Your task to perform on an android device: turn on the 12-hour format for clock Image 0: 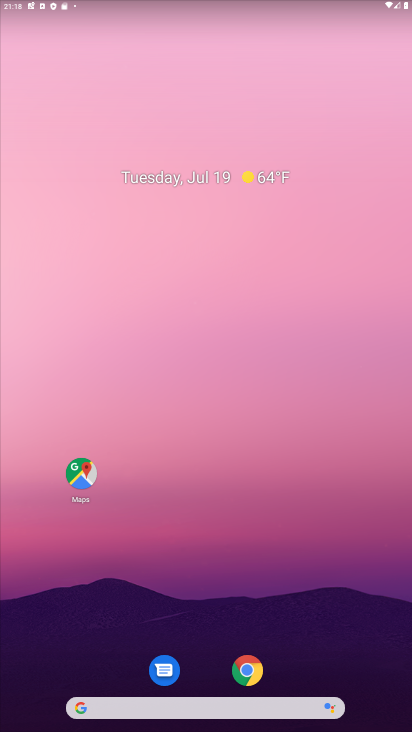
Step 0: drag from (199, 731) to (172, 312)
Your task to perform on an android device: turn on the 12-hour format for clock Image 1: 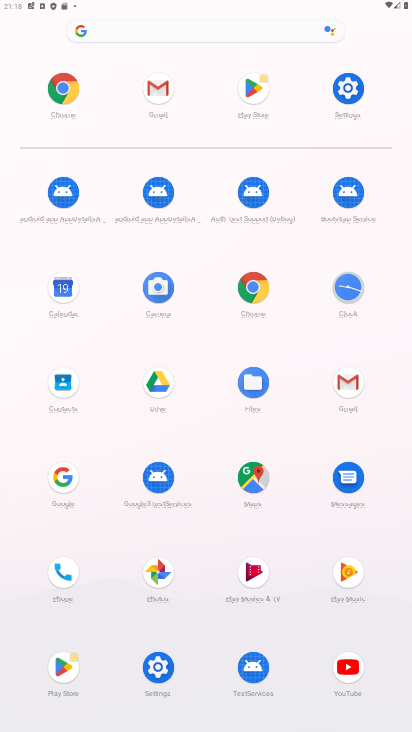
Step 1: click (352, 290)
Your task to perform on an android device: turn on the 12-hour format for clock Image 2: 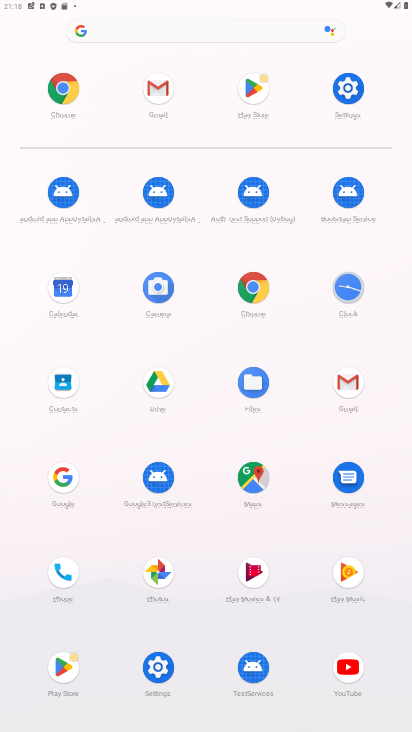
Step 2: click (352, 290)
Your task to perform on an android device: turn on the 12-hour format for clock Image 3: 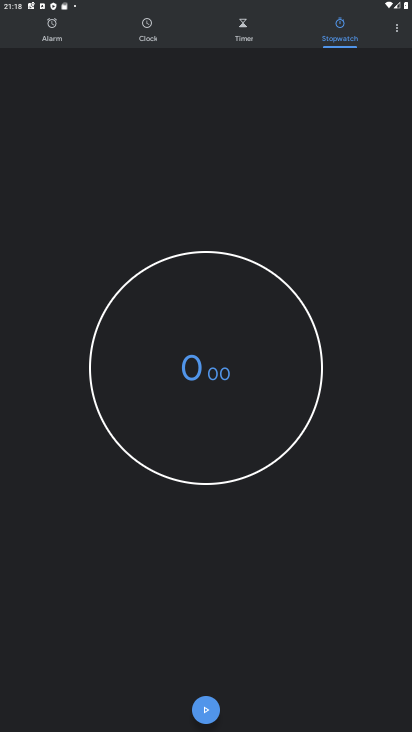
Step 3: click (400, 31)
Your task to perform on an android device: turn on the 12-hour format for clock Image 4: 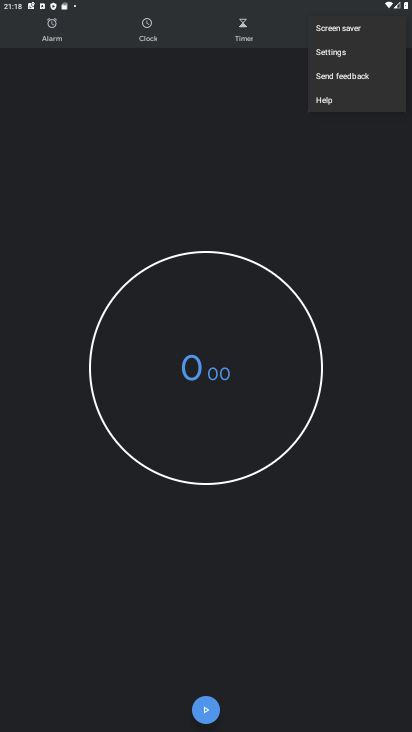
Step 4: click (346, 49)
Your task to perform on an android device: turn on the 12-hour format for clock Image 5: 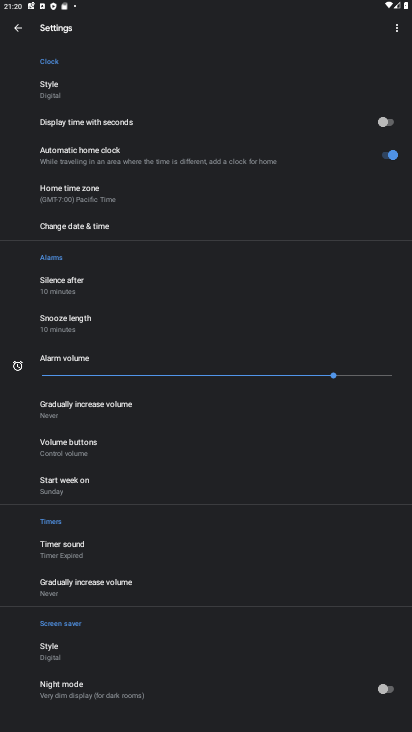
Step 5: click (183, 232)
Your task to perform on an android device: turn on the 12-hour format for clock Image 6: 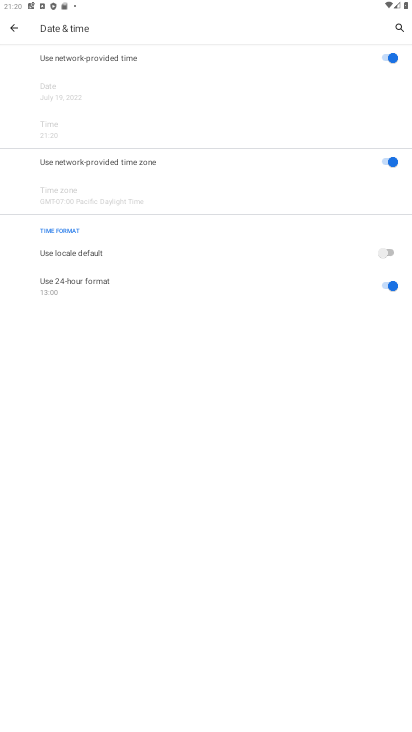
Step 6: click (392, 281)
Your task to perform on an android device: turn on the 12-hour format for clock Image 7: 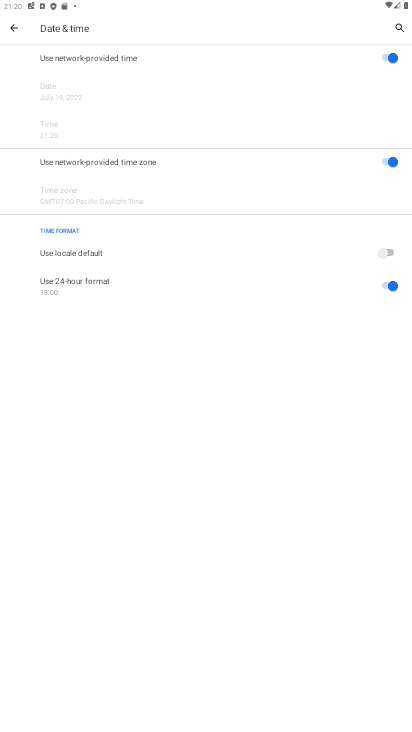
Step 7: click (391, 254)
Your task to perform on an android device: turn on the 12-hour format for clock Image 8: 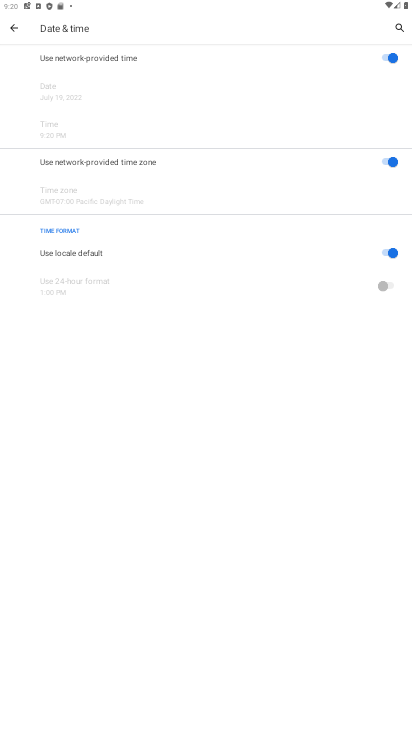
Step 8: task complete